Your task to perform on an android device: toggle improve location accuracy Image 0: 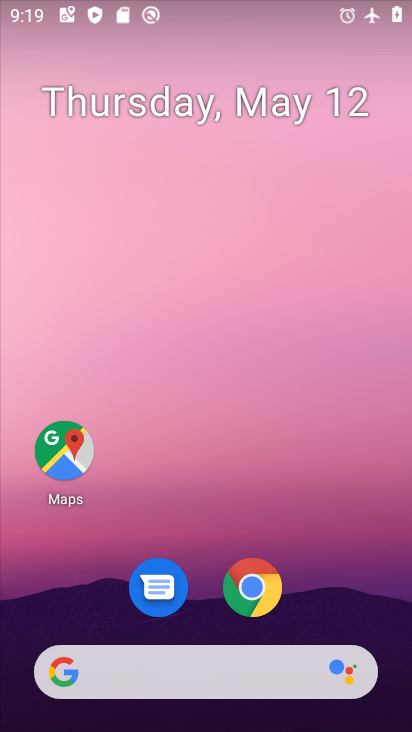
Step 0: drag from (311, 608) to (313, 274)
Your task to perform on an android device: toggle improve location accuracy Image 1: 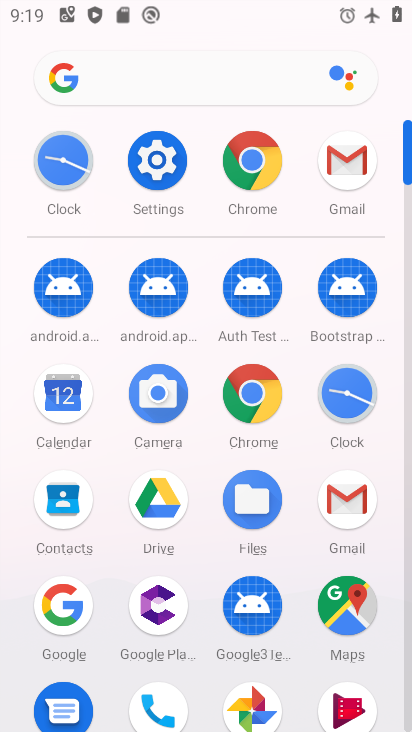
Step 1: click (163, 157)
Your task to perform on an android device: toggle improve location accuracy Image 2: 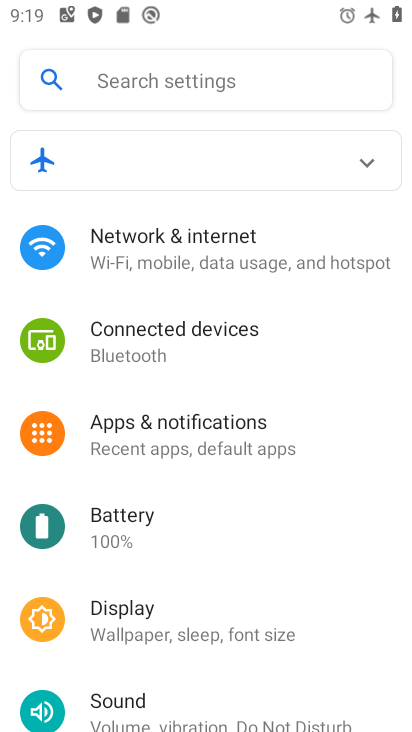
Step 2: drag from (249, 618) to (326, 239)
Your task to perform on an android device: toggle improve location accuracy Image 3: 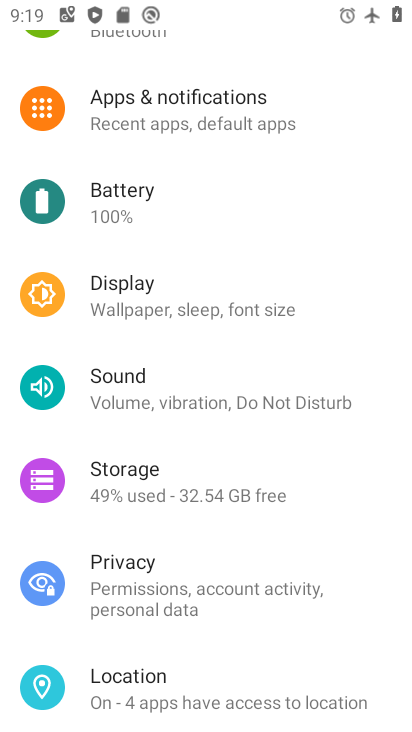
Step 3: drag from (159, 593) to (286, 177)
Your task to perform on an android device: toggle improve location accuracy Image 4: 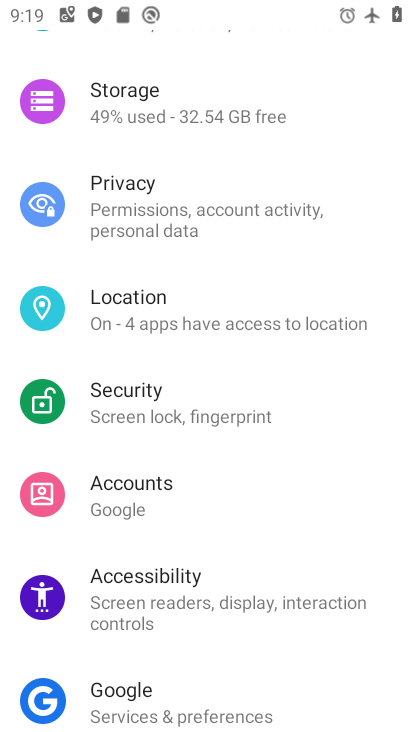
Step 4: drag from (198, 171) to (199, 701)
Your task to perform on an android device: toggle improve location accuracy Image 5: 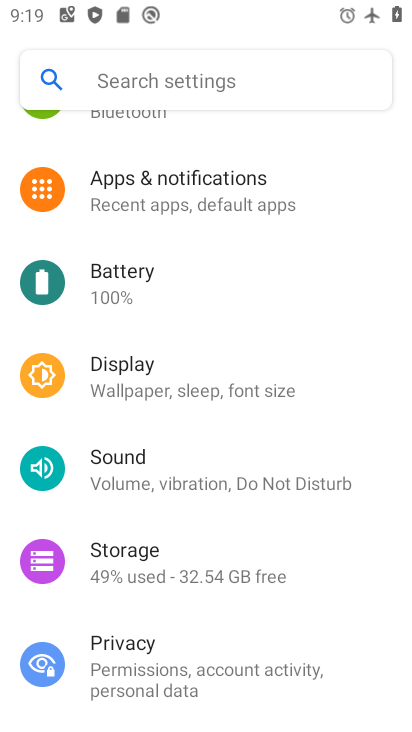
Step 5: drag from (158, 662) to (288, 224)
Your task to perform on an android device: toggle improve location accuracy Image 6: 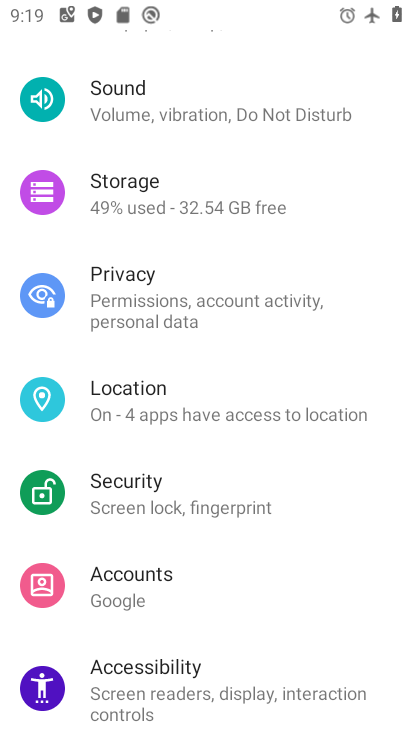
Step 6: click (125, 392)
Your task to perform on an android device: toggle improve location accuracy Image 7: 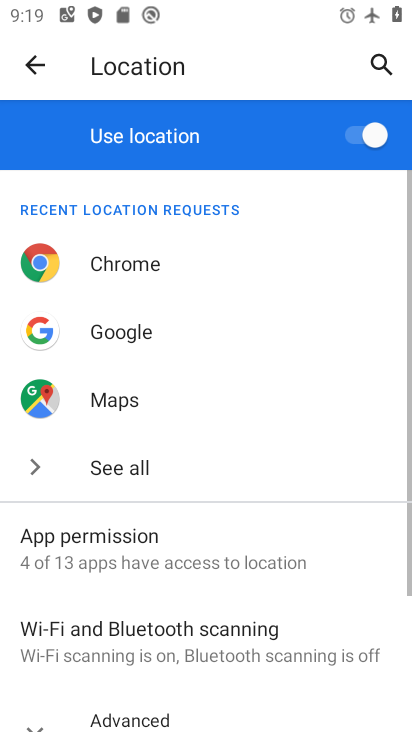
Step 7: drag from (192, 604) to (284, 228)
Your task to perform on an android device: toggle improve location accuracy Image 8: 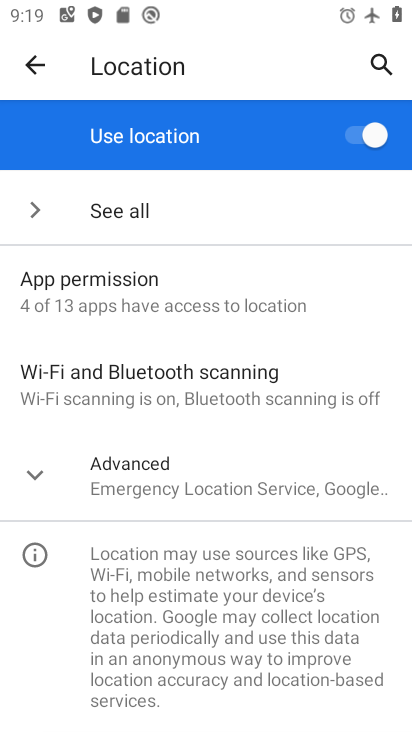
Step 8: click (144, 482)
Your task to perform on an android device: toggle improve location accuracy Image 9: 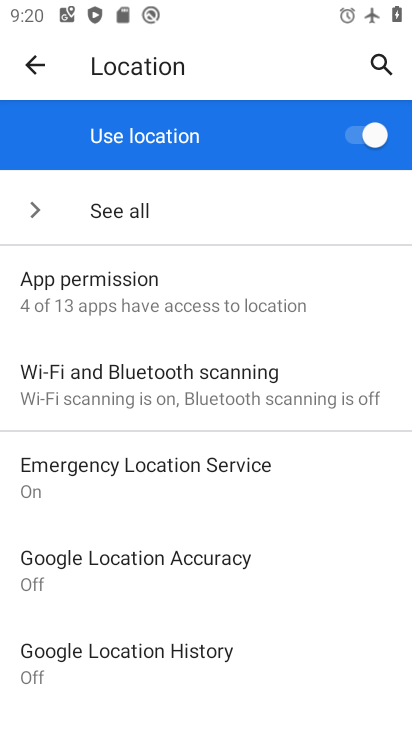
Step 9: drag from (214, 590) to (246, 489)
Your task to perform on an android device: toggle improve location accuracy Image 10: 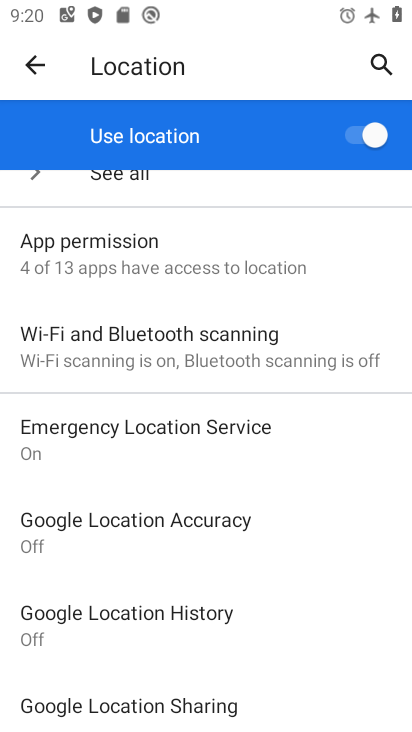
Step 10: click (132, 530)
Your task to perform on an android device: toggle improve location accuracy Image 11: 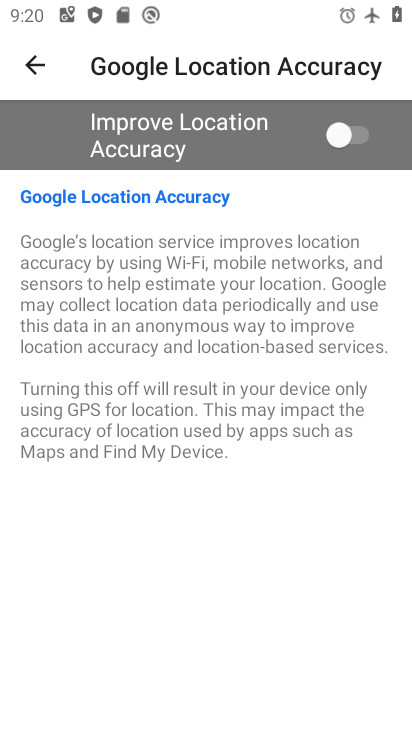
Step 11: click (362, 138)
Your task to perform on an android device: toggle improve location accuracy Image 12: 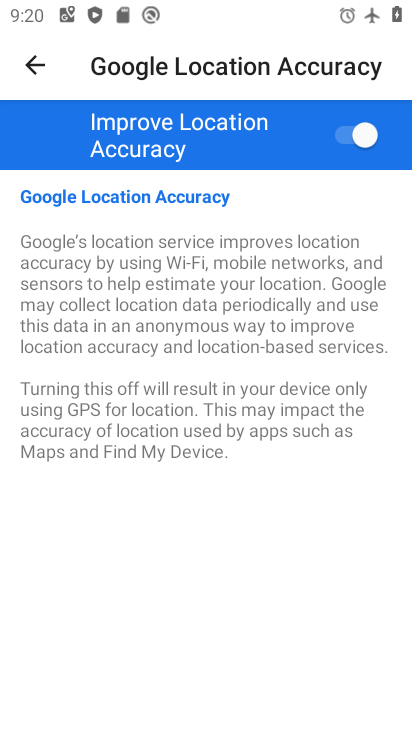
Step 12: task complete